Your task to perform on an android device: Open Youtube and go to "Your channel" Image 0: 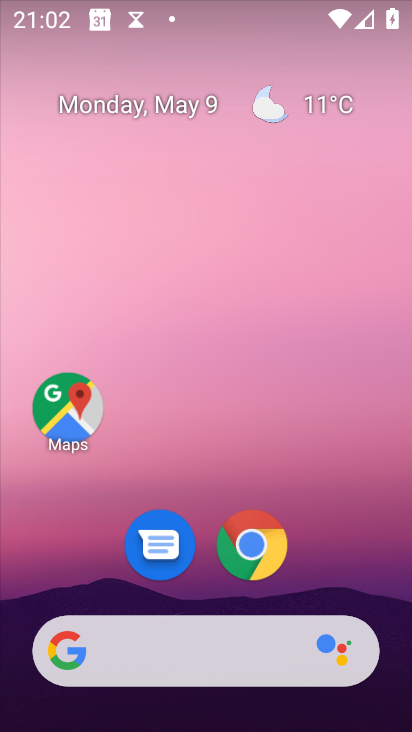
Step 0: drag from (209, 726) to (209, 185)
Your task to perform on an android device: Open Youtube and go to "Your channel" Image 1: 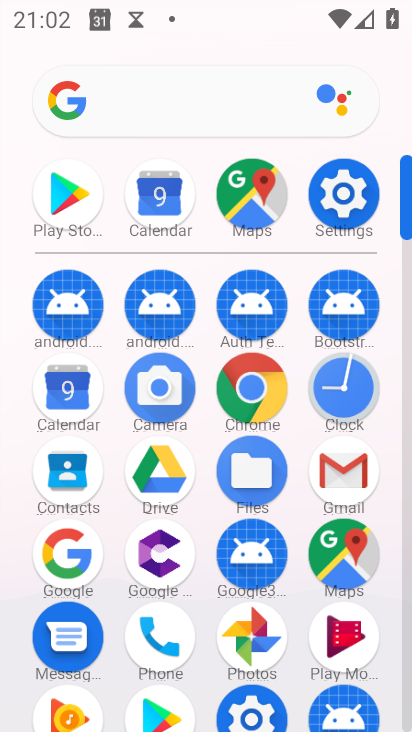
Step 1: drag from (307, 626) to (294, 354)
Your task to perform on an android device: Open Youtube and go to "Your channel" Image 2: 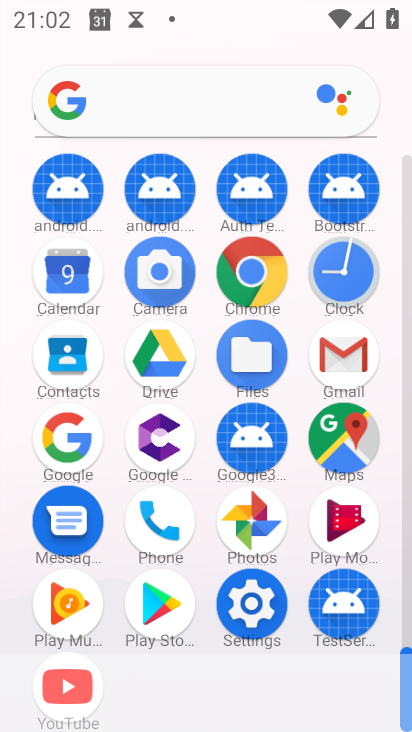
Step 2: drag from (128, 672) to (104, 331)
Your task to perform on an android device: Open Youtube and go to "Your channel" Image 3: 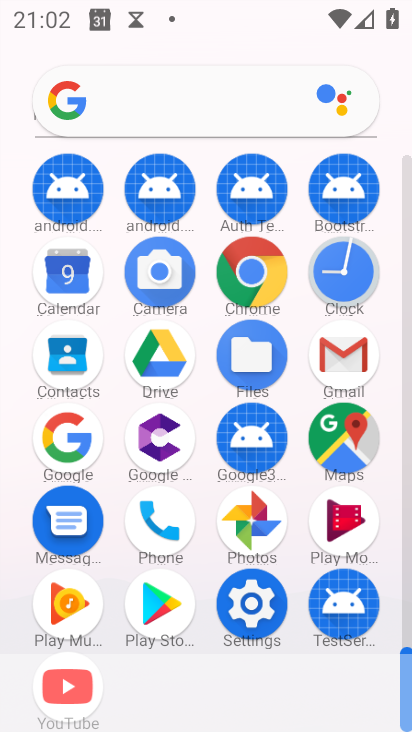
Step 3: drag from (114, 641) to (119, 389)
Your task to perform on an android device: Open Youtube and go to "Your channel" Image 4: 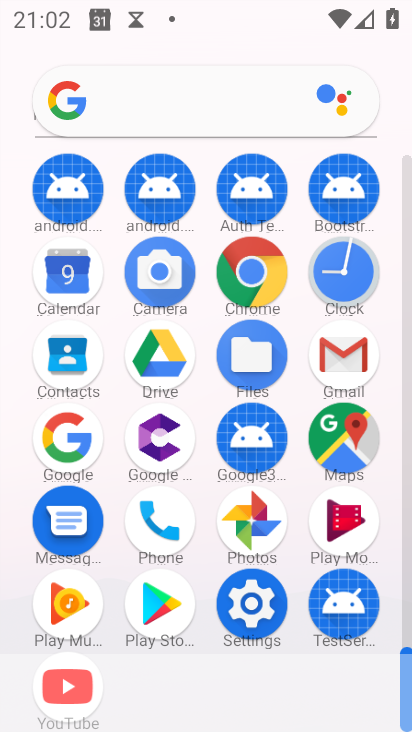
Step 4: click (71, 656)
Your task to perform on an android device: Open Youtube and go to "Your channel" Image 5: 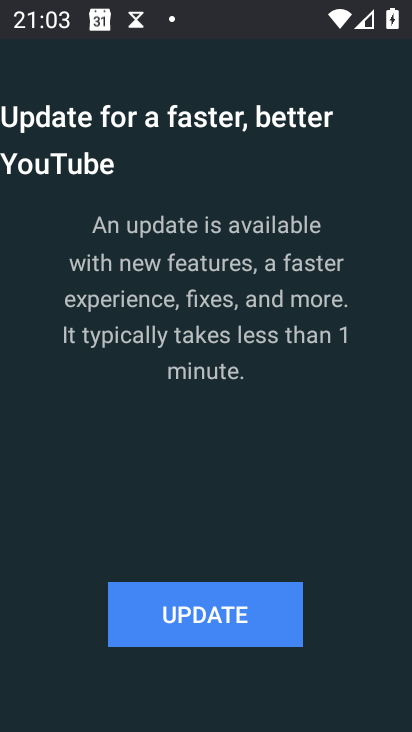
Step 5: task complete